Your task to perform on an android device: Open wifi settings Image 0: 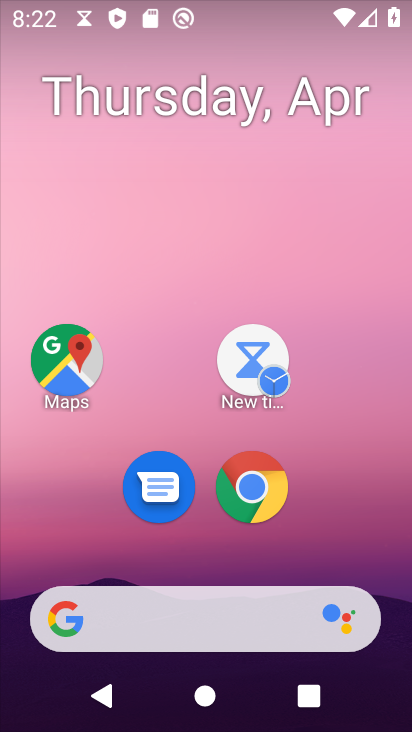
Step 0: click (302, 101)
Your task to perform on an android device: Open wifi settings Image 1: 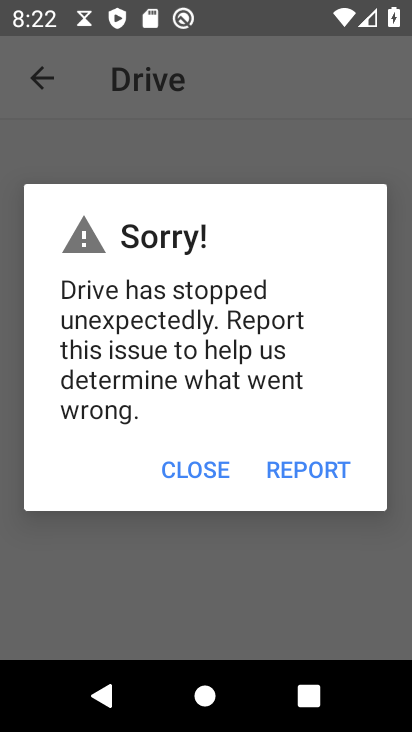
Step 1: press home button
Your task to perform on an android device: Open wifi settings Image 2: 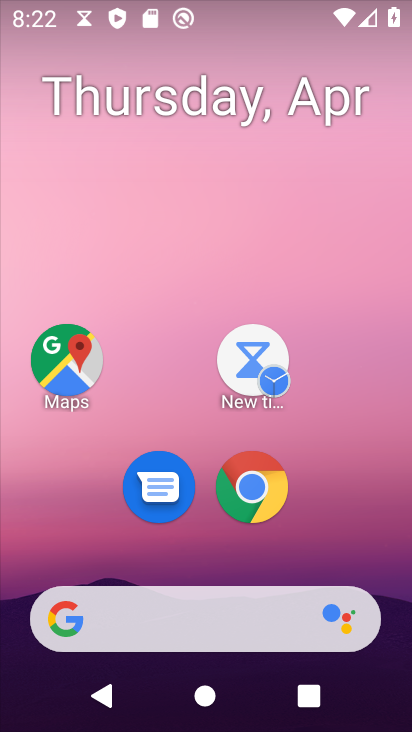
Step 2: drag from (312, 489) to (302, 74)
Your task to perform on an android device: Open wifi settings Image 3: 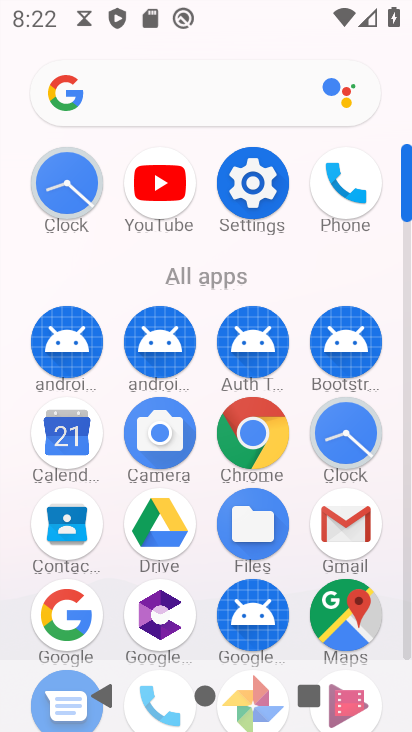
Step 3: click (257, 170)
Your task to perform on an android device: Open wifi settings Image 4: 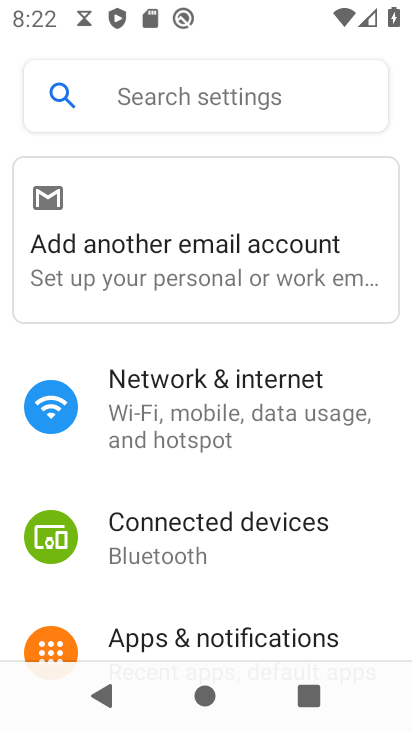
Step 4: click (199, 402)
Your task to perform on an android device: Open wifi settings Image 5: 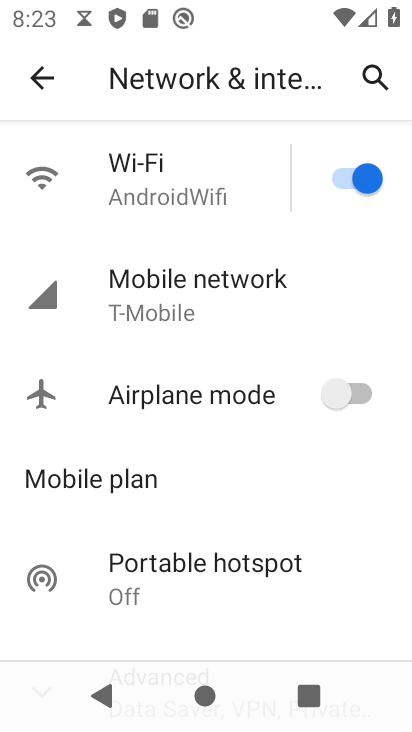
Step 5: click (104, 183)
Your task to perform on an android device: Open wifi settings Image 6: 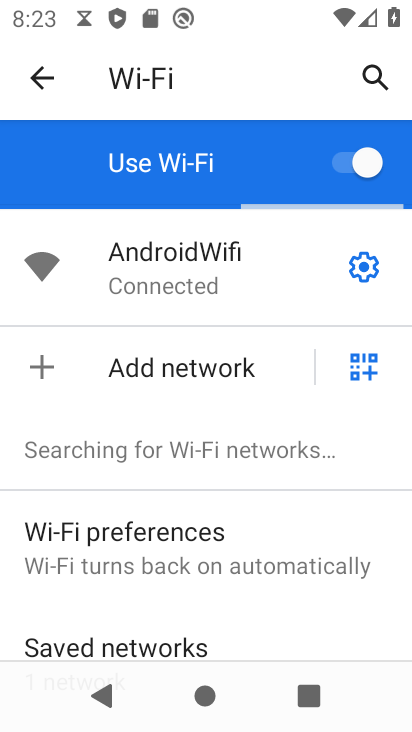
Step 6: task complete